Your task to perform on an android device: check storage Image 0: 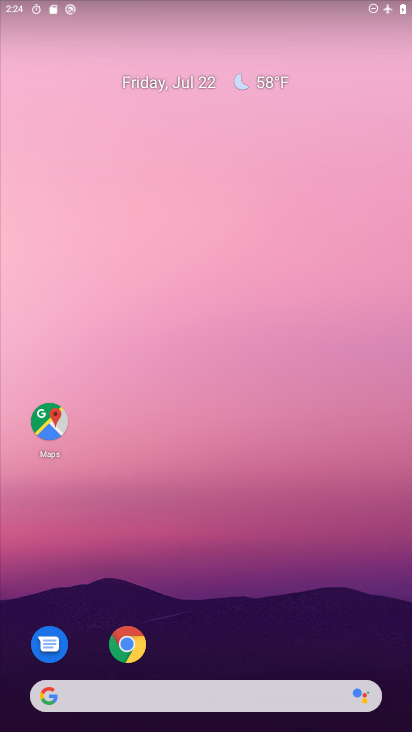
Step 0: drag from (215, 649) to (260, 212)
Your task to perform on an android device: check storage Image 1: 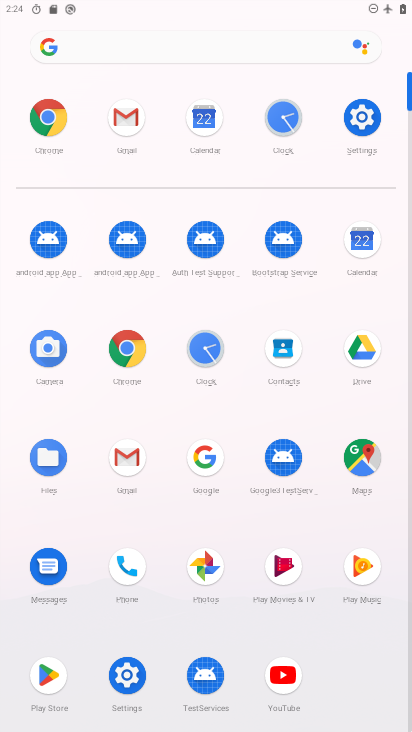
Step 1: click (357, 124)
Your task to perform on an android device: check storage Image 2: 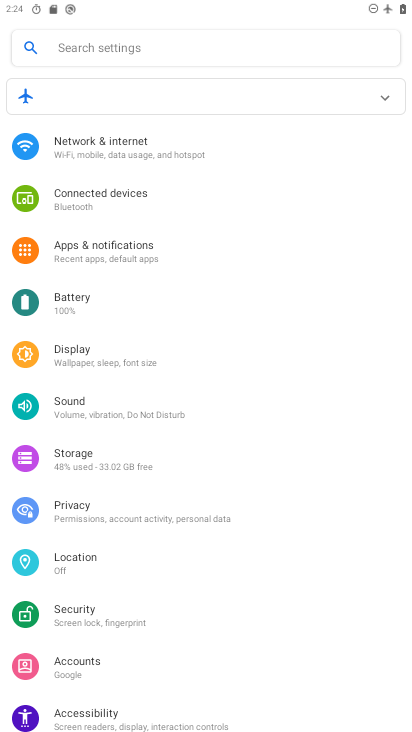
Step 2: click (93, 469)
Your task to perform on an android device: check storage Image 3: 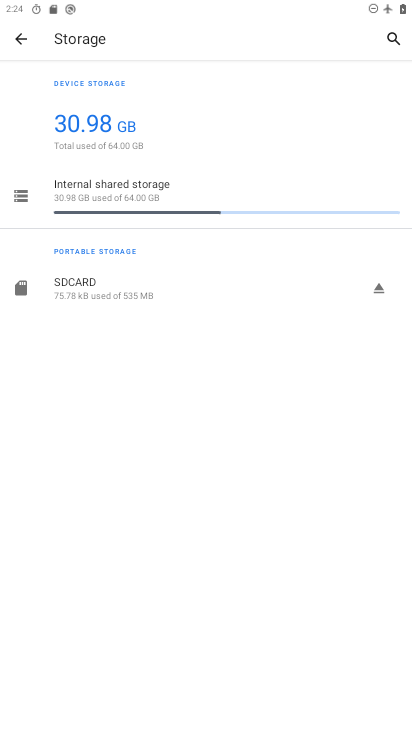
Step 3: click (128, 214)
Your task to perform on an android device: check storage Image 4: 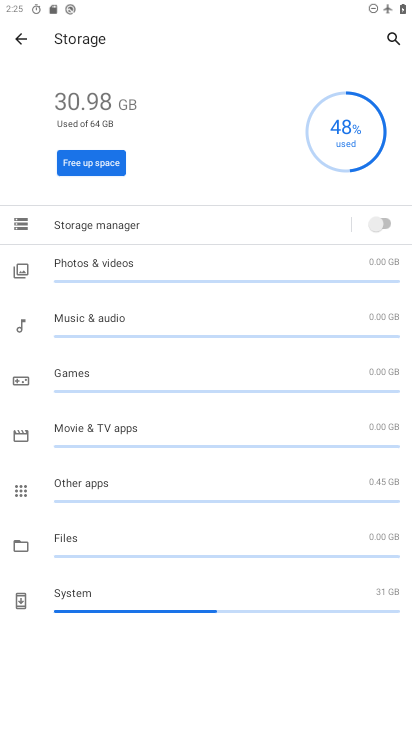
Step 4: task complete